Your task to perform on an android device: turn off sleep mode Image 0: 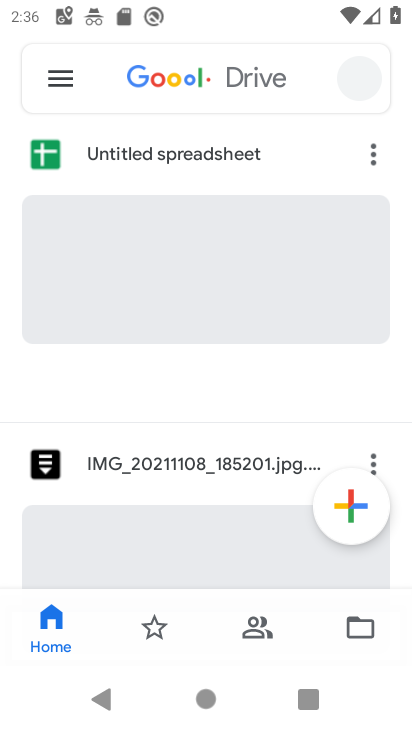
Step 0: drag from (260, 551) to (291, 406)
Your task to perform on an android device: turn off sleep mode Image 1: 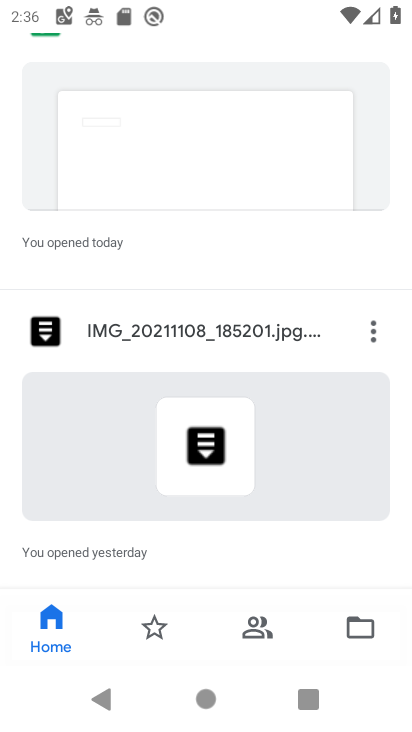
Step 1: press home button
Your task to perform on an android device: turn off sleep mode Image 2: 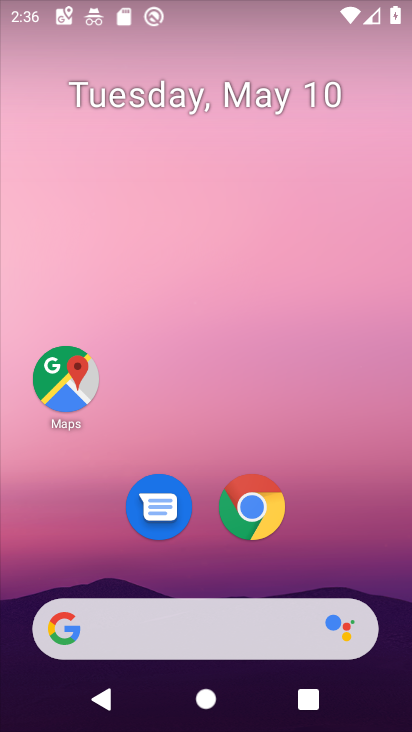
Step 2: drag from (218, 579) to (234, 193)
Your task to perform on an android device: turn off sleep mode Image 3: 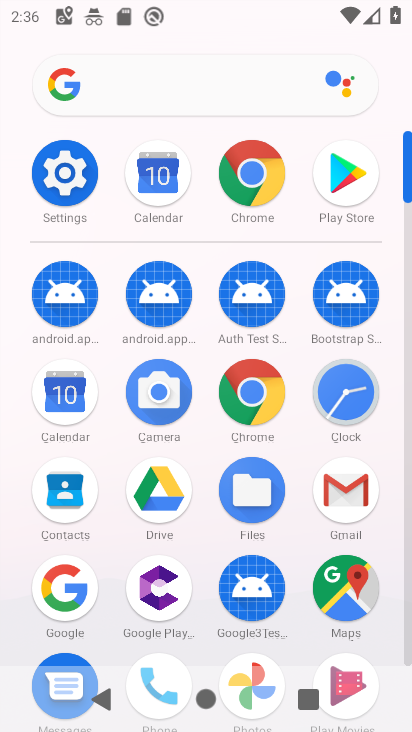
Step 3: drag from (209, 544) to (217, 206)
Your task to perform on an android device: turn off sleep mode Image 4: 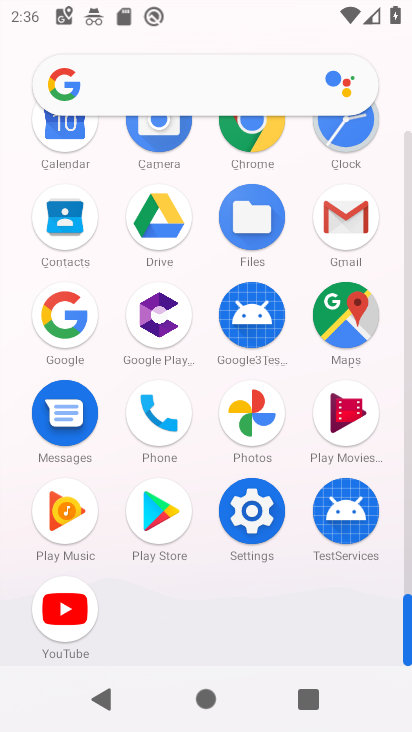
Step 4: click (251, 510)
Your task to perform on an android device: turn off sleep mode Image 5: 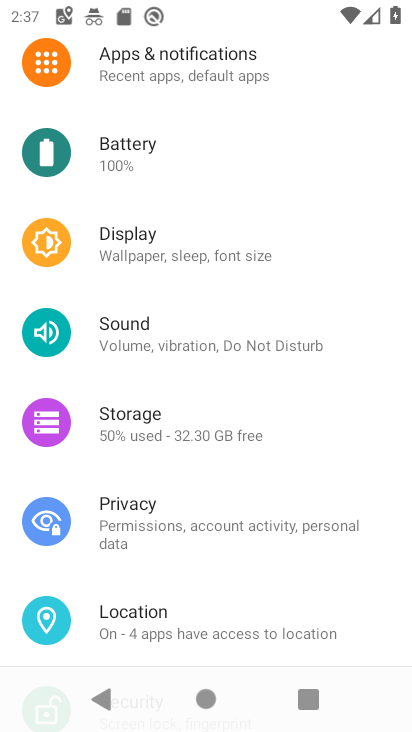
Step 5: click (243, 266)
Your task to perform on an android device: turn off sleep mode Image 6: 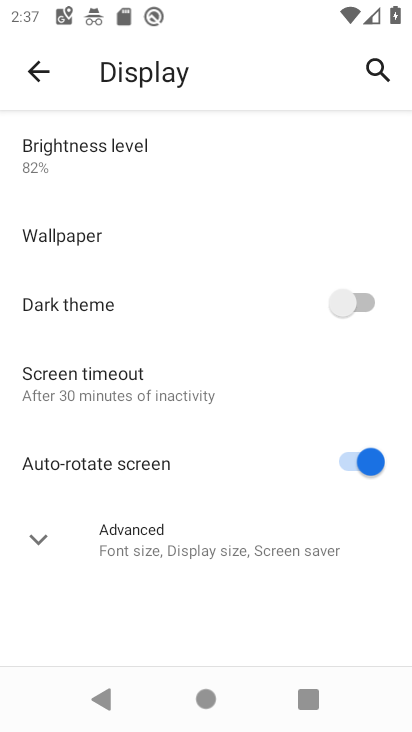
Step 6: task complete